Your task to perform on an android device: Open calendar and show me the first week of next month Image 0: 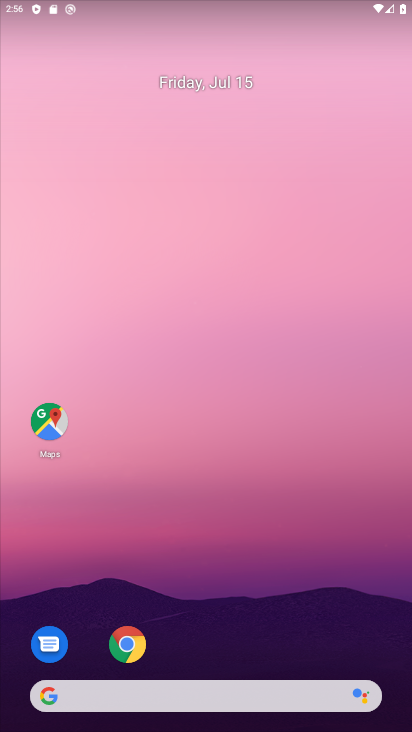
Step 0: drag from (233, 648) to (256, 62)
Your task to perform on an android device: Open calendar and show me the first week of next month Image 1: 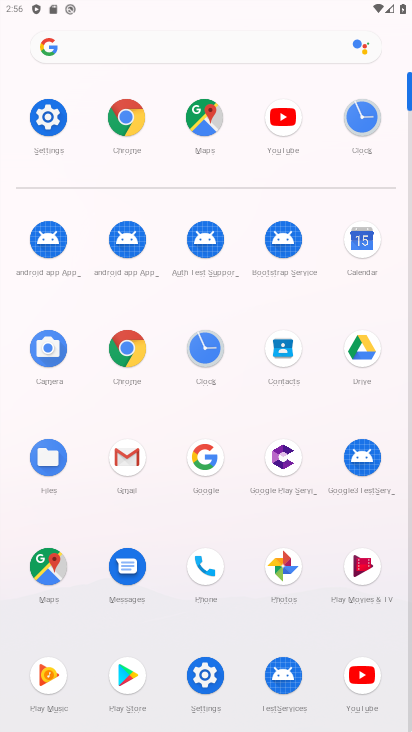
Step 1: click (352, 240)
Your task to perform on an android device: Open calendar and show me the first week of next month Image 2: 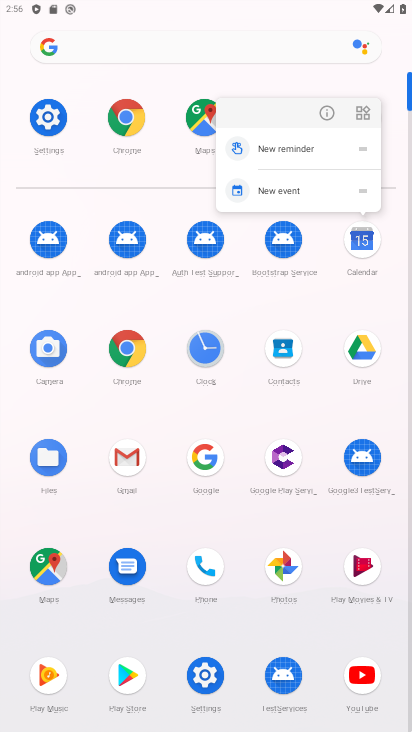
Step 2: click (358, 241)
Your task to perform on an android device: Open calendar and show me the first week of next month Image 3: 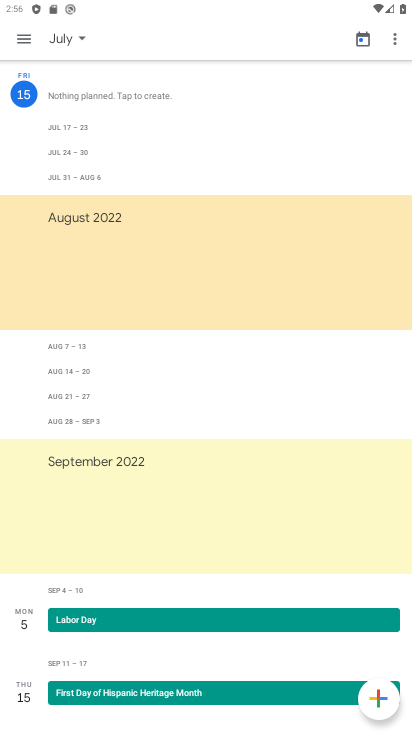
Step 3: click (74, 39)
Your task to perform on an android device: Open calendar and show me the first week of next month Image 4: 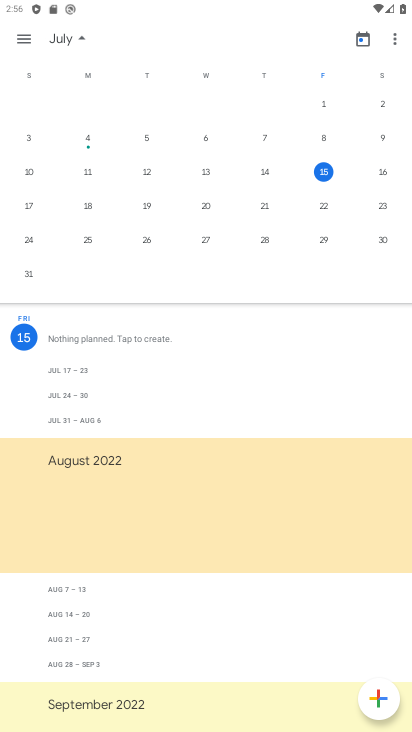
Step 4: drag from (373, 177) to (0, 132)
Your task to perform on an android device: Open calendar and show me the first week of next month Image 5: 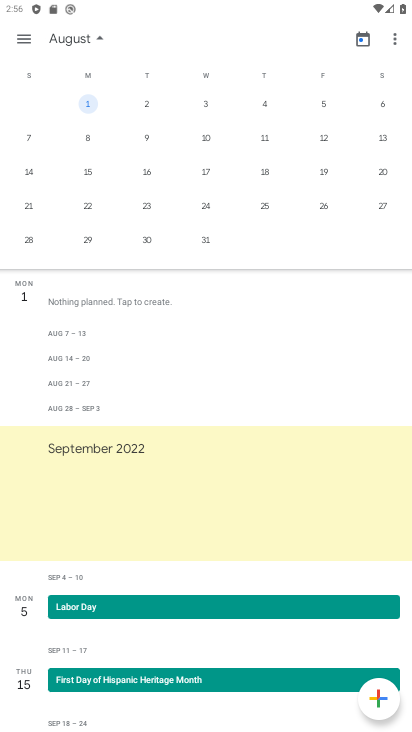
Step 5: click (86, 102)
Your task to perform on an android device: Open calendar and show me the first week of next month Image 6: 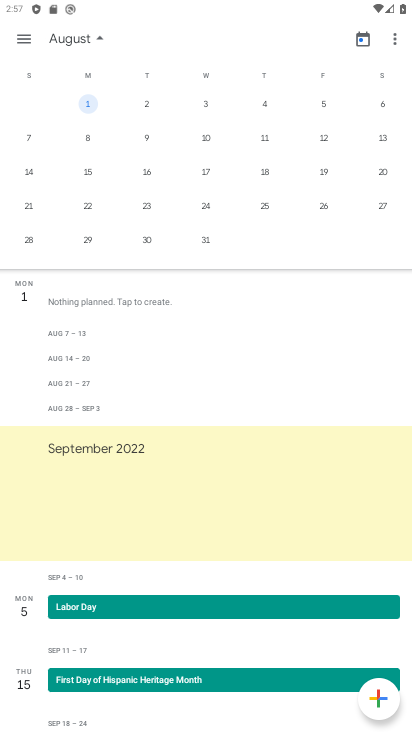
Step 6: task complete